Your task to perform on an android device: Go to location settings Image 0: 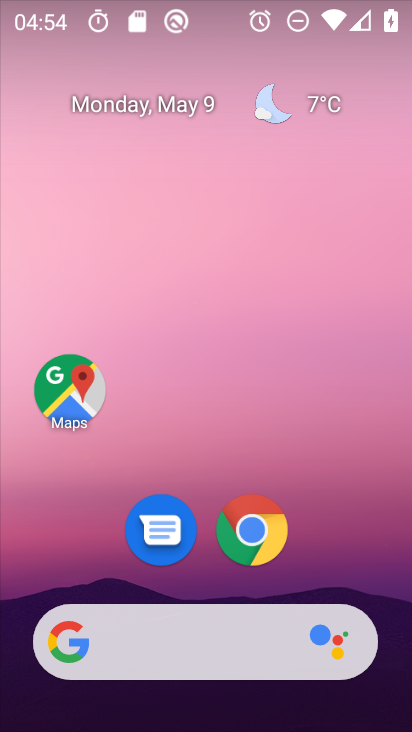
Step 0: drag from (196, 561) to (291, 79)
Your task to perform on an android device: Go to location settings Image 1: 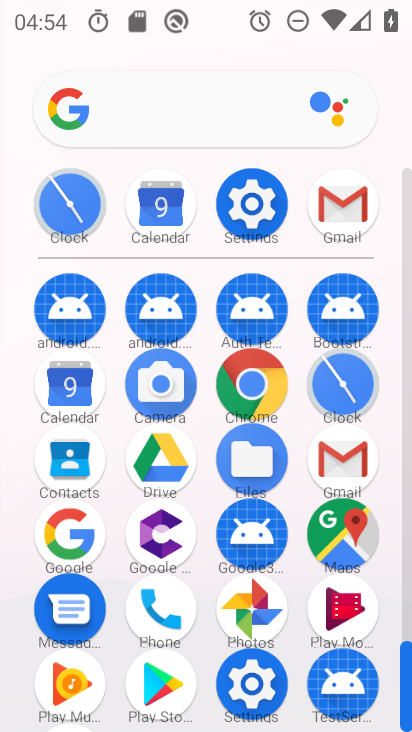
Step 1: click (259, 208)
Your task to perform on an android device: Go to location settings Image 2: 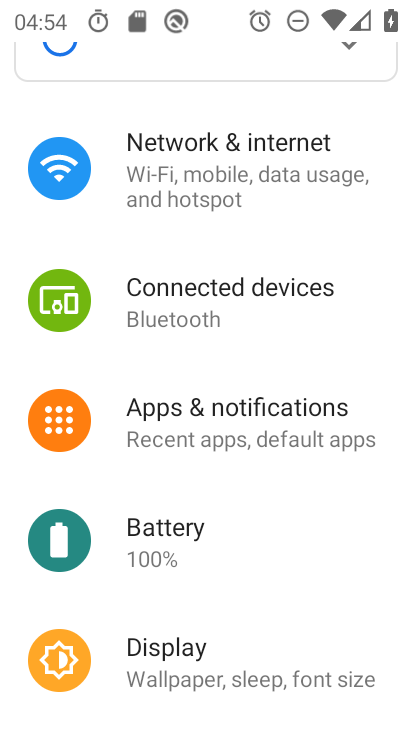
Step 2: drag from (191, 652) to (282, 203)
Your task to perform on an android device: Go to location settings Image 3: 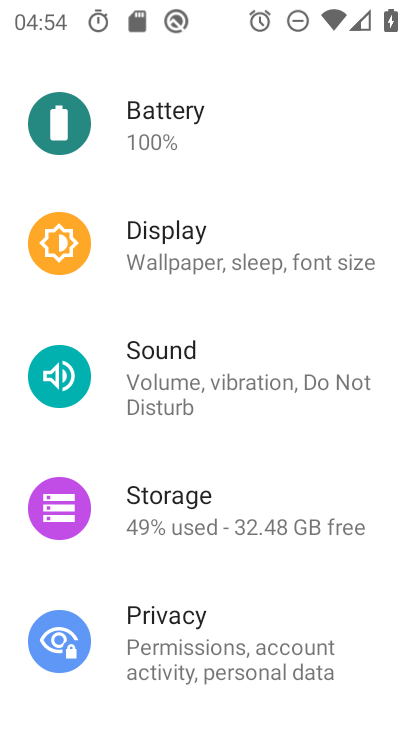
Step 3: drag from (176, 597) to (278, 144)
Your task to perform on an android device: Go to location settings Image 4: 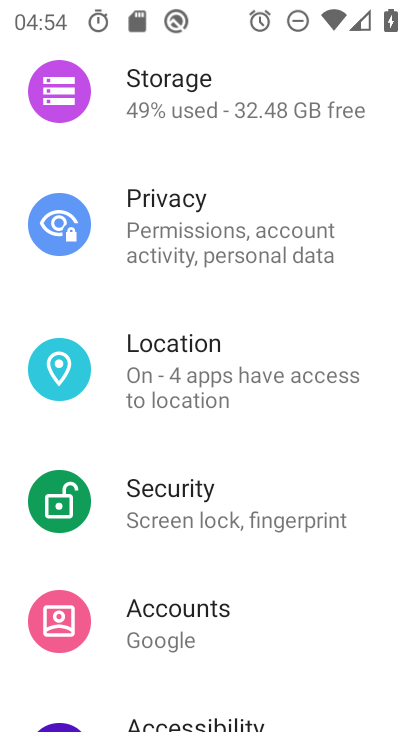
Step 4: drag from (267, 221) to (313, 185)
Your task to perform on an android device: Go to location settings Image 5: 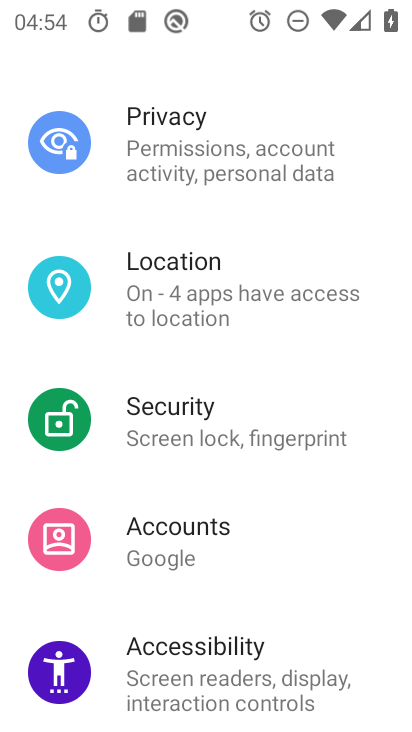
Step 5: click (205, 313)
Your task to perform on an android device: Go to location settings Image 6: 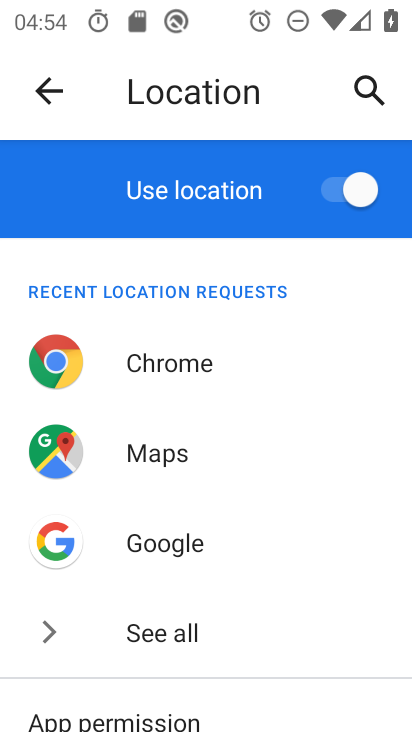
Step 6: task complete